Your task to perform on an android device: Go to Wikipedia Image 0: 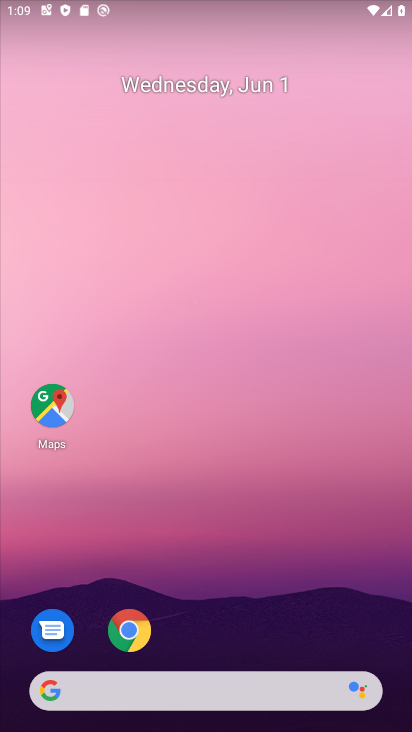
Step 0: press home button
Your task to perform on an android device: Go to Wikipedia Image 1: 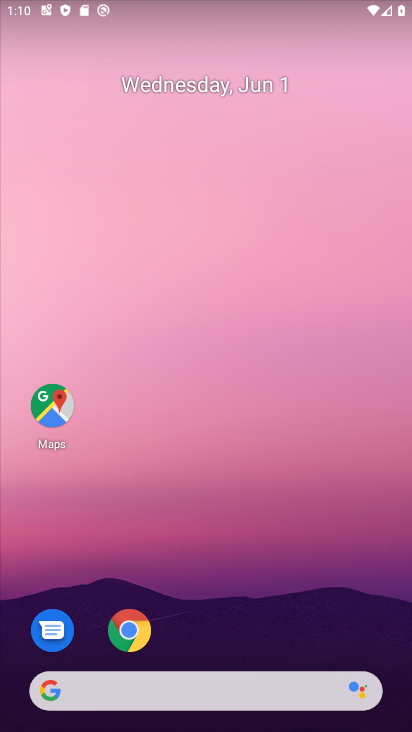
Step 1: click (59, 695)
Your task to perform on an android device: Go to Wikipedia Image 2: 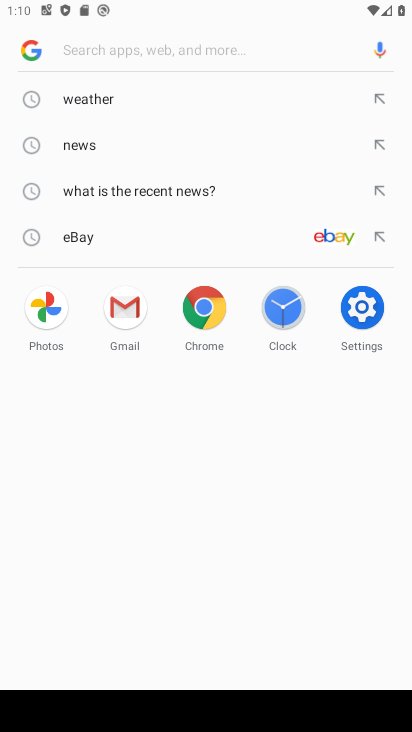
Step 2: type "Wikipedia"
Your task to perform on an android device: Go to Wikipedia Image 3: 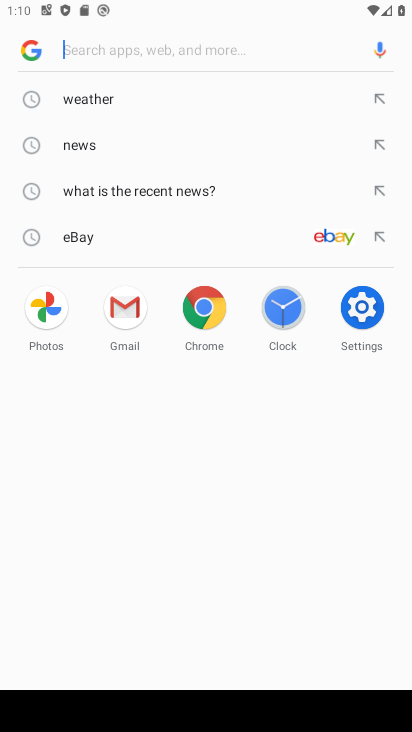
Step 3: click (151, 44)
Your task to perform on an android device: Go to Wikipedia Image 4: 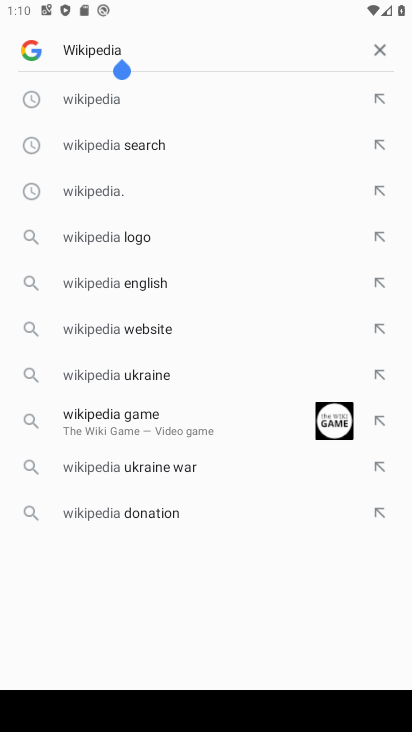
Step 4: click (84, 91)
Your task to perform on an android device: Go to Wikipedia Image 5: 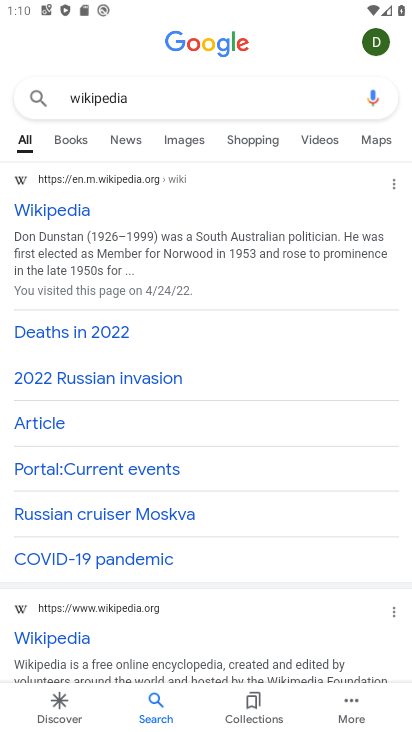
Step 5: click (42, 209)
Your task to perform on an android device: Go to Wikipedia Image 6: 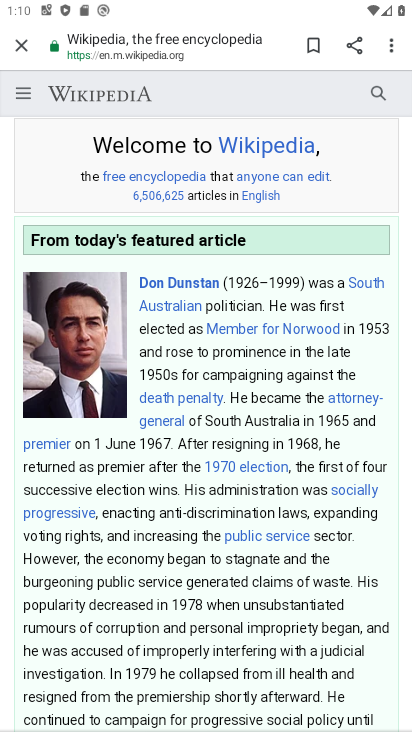
Step 6: task complete